Your task to perform on an android device: change keyboard looks Image 0: 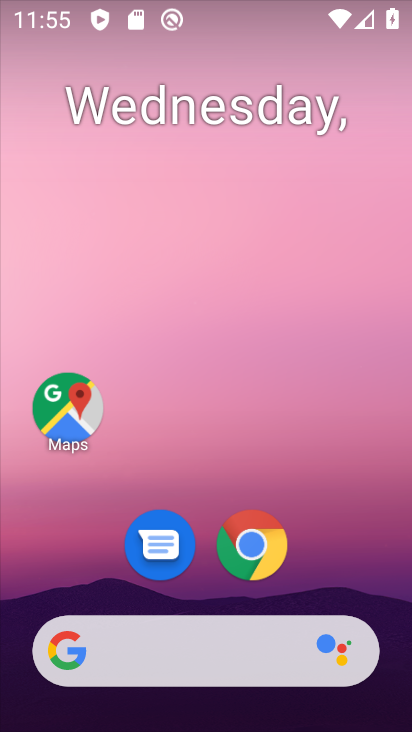
Step 0: drag from (316, 506) to (320, 5)
Your task to perform on an android device: change keyboard looks Image 1: 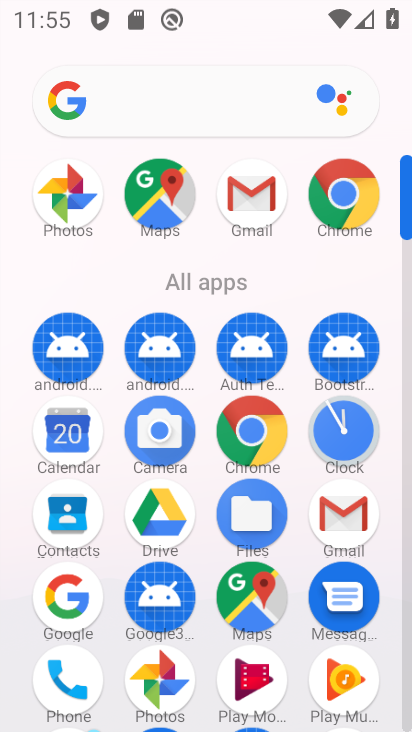
Step 1: drag from (210, 553) to (247, 187)
Your task to perform on an android device: change keyboard looks Image 2: 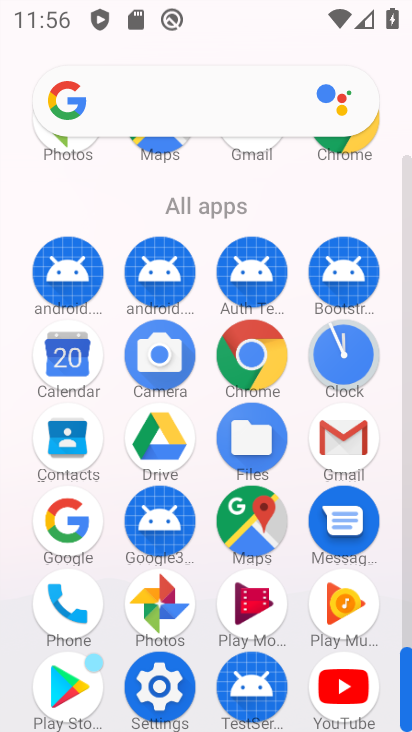
Step 2: click (171, 681)
Your task to perform on an android device: change keyboard looks Image 3: 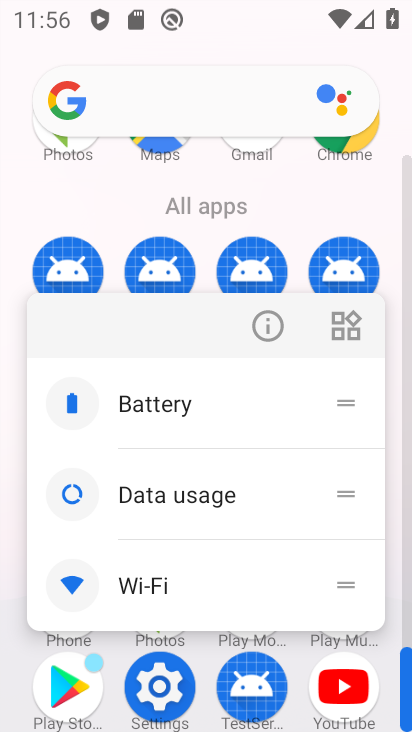
Step 3: click (170, 686)
Your task to perform on an android device: change keyboard looks Image 4: 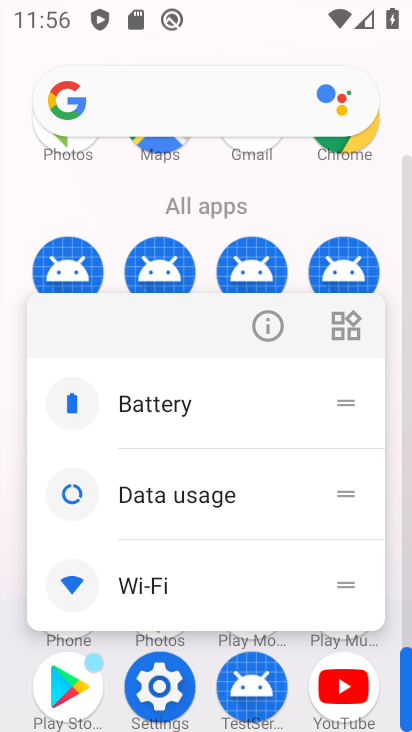
Step 4: drag from (388, 206) to (405, 49)
Your task to perform on an android device: change keyboard looks Image 5: 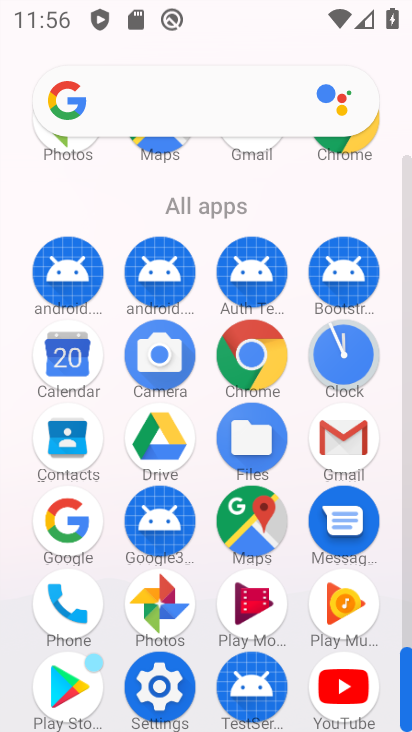
Step 5: drag from (375, 571) to (399, 226)
Your task to perform on an android device: change keyboard looks Image 6: 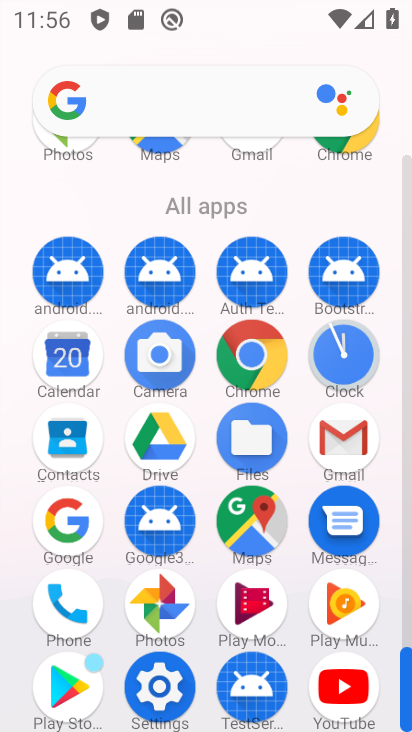
Step 6: click (152, 677)
Your task to perform on an android device: change keyboard looks Image 7: 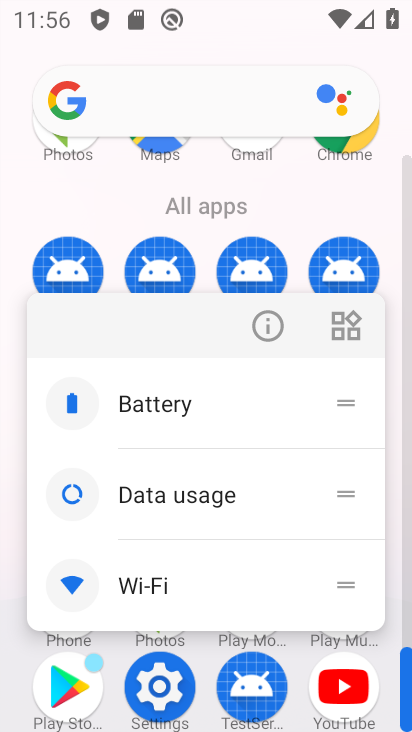
Step 7: click (162, 692)
Your task to perform on an android device: change keyboard looks Image 8: 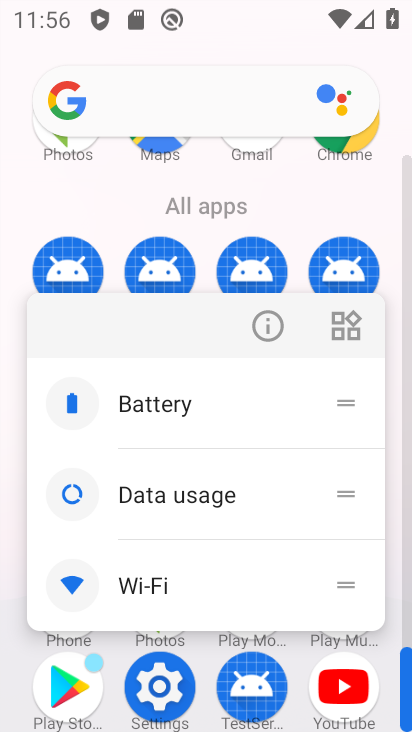
Step 8: click (172, 697)
Your task to perform on an android device: change keyboard looks Image 9: 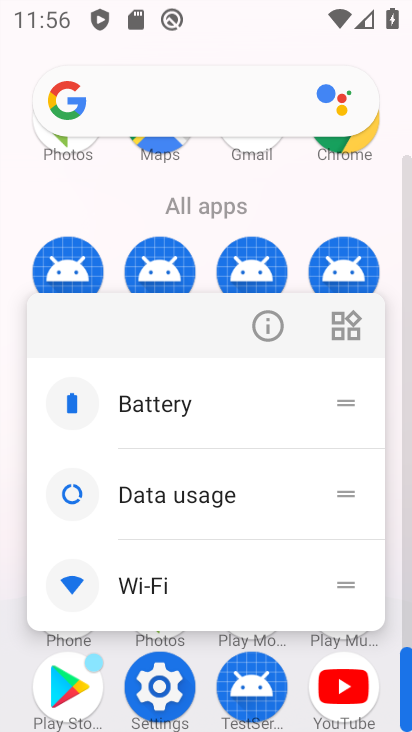
Step 9: click (171, 697)
Your task to perform on an android device: change keyboard looks Image 10: 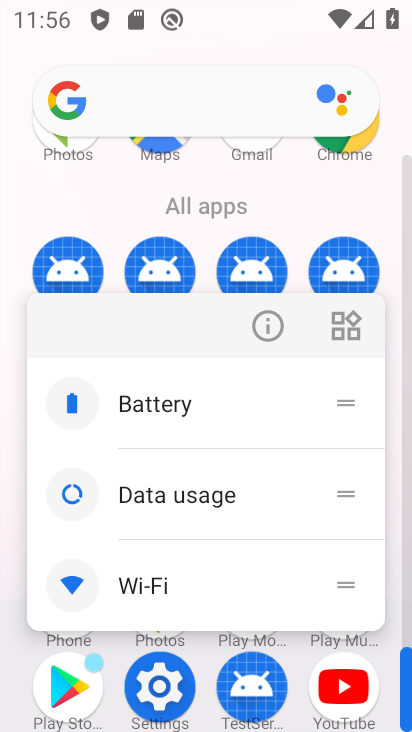
Step 10: click (207, 652)
Your task to perform on an android device: change keyboard looks Image 11: 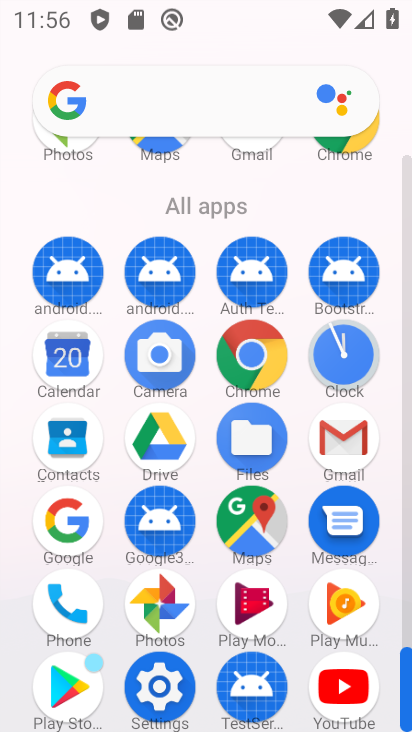
Step 11: click (169, 681)
Your task to perform on an android device: change keyboard looks Image 12: 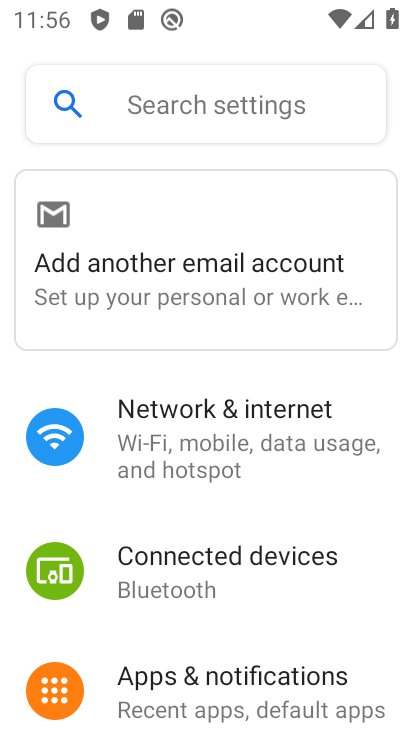
Step 12: drag from (292, 630) to (302, 0)
Your task to perform on an android device: change keyboard looks Image 13: 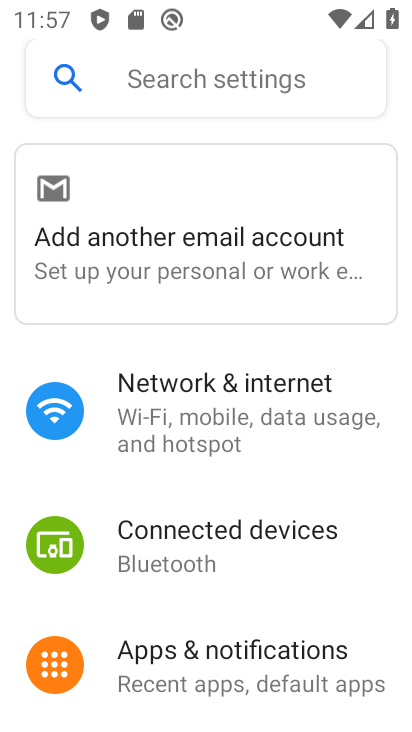
Step 13: drag from (218, 588) to (236, 148)
Your task to perform on an android device: change keyboard looks Image 14: 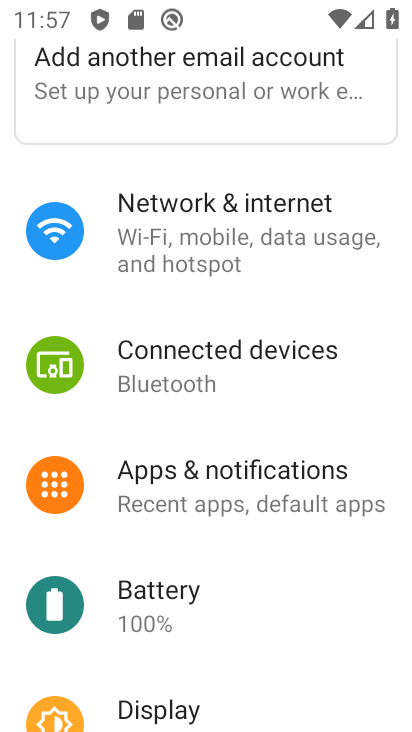
Step 14: drag from (184, 537) to (258, 114)
Your task to perform on an android device: change keyboard looks Image 15: 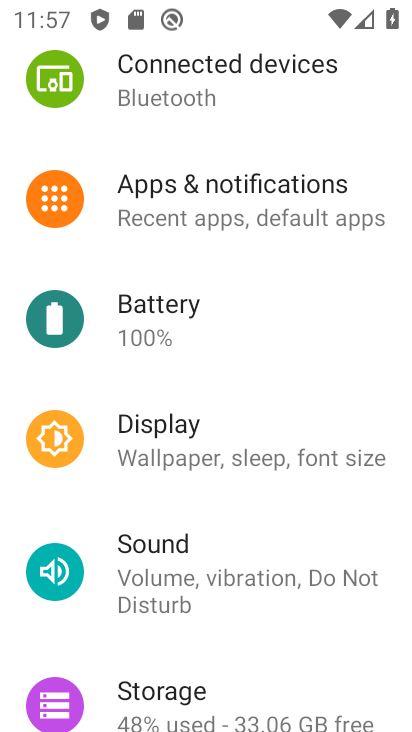
Step 15: drag from (199, 549) to (312, 106)
Your task to perform on an android device: change keyboard looks Image 16: 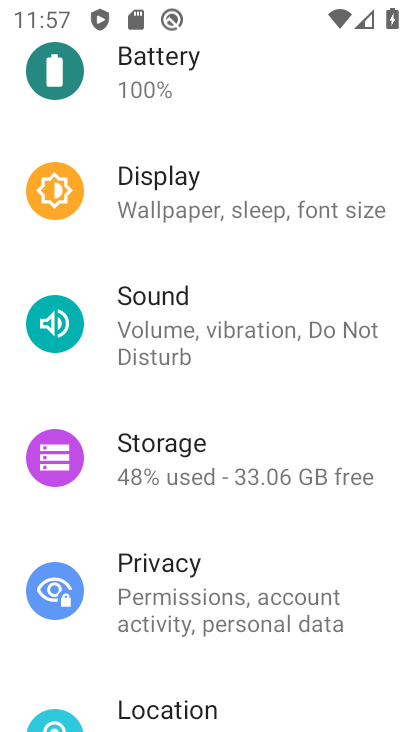
Step 16: drag from (223, 599) to (295, 146)
Your task to perform on an android device: change keyboard looks Image 17: 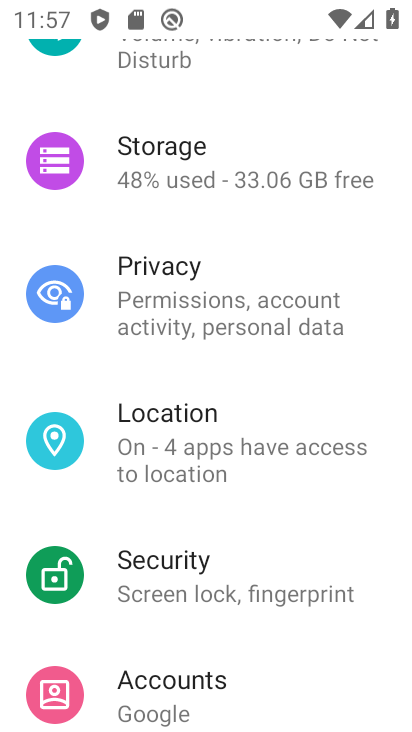
Step 17: drag from (213, 630) to (292, 240)
Your task to perform on an android device: change keyboard looks Image 18: 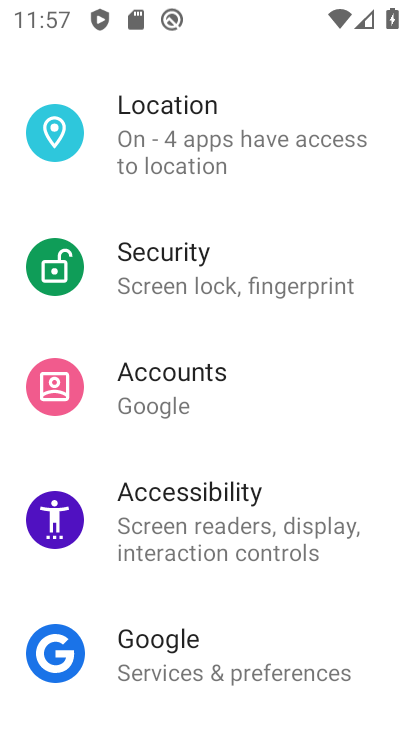
Step 18: drag from (175, 613) to (273, 256)
Your task to perform on an android device: change keyboard looks Image 19: 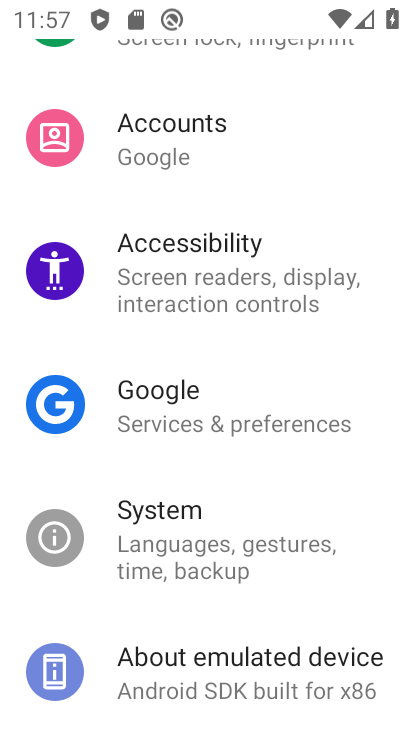
Step 19: click (191, 528)
Your task to perform on an android device: change keyboard looks Image 20: 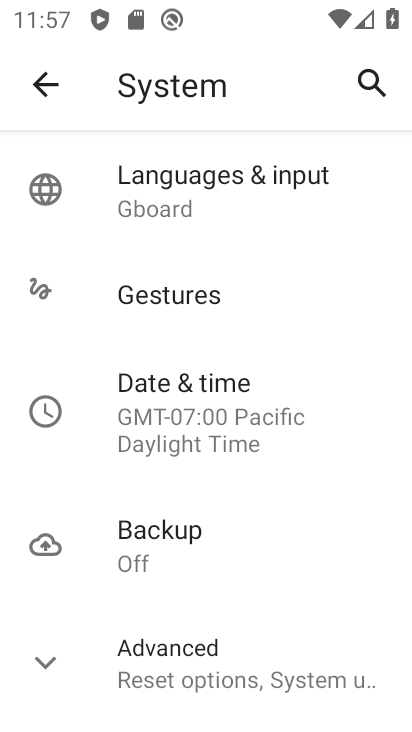
Step 20: drag from (237, 502) to (264, 253)
Your task to perform on an android device: change keyboard looks Image 21: 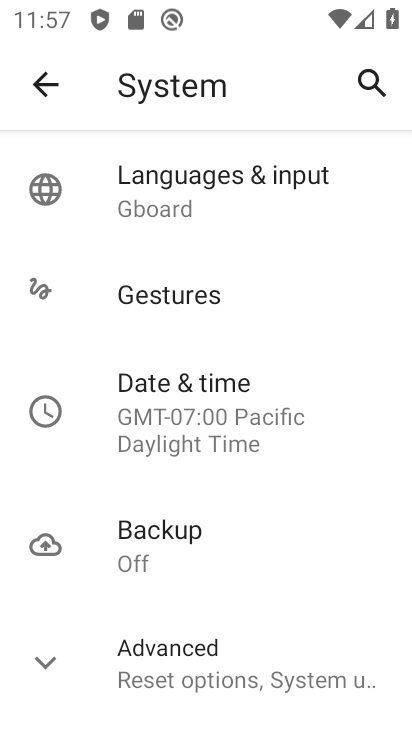
Step 21: click (211, 202)
Your task to perform on an android device: change keyboard looks Image 22: 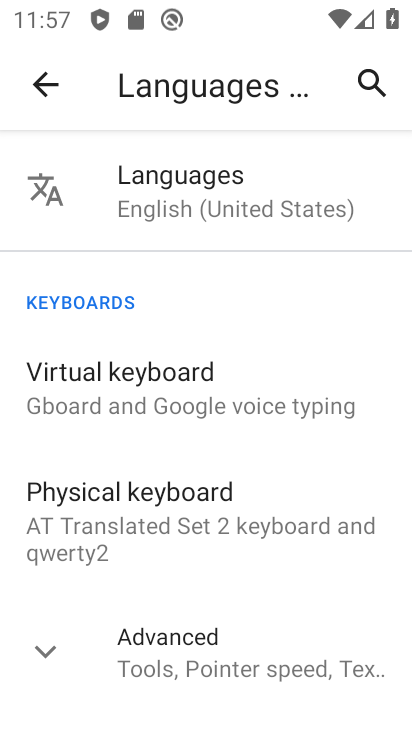
Step 22: click (179, 359)
Your task to perform on an android device: change keyboard looks Image 23: 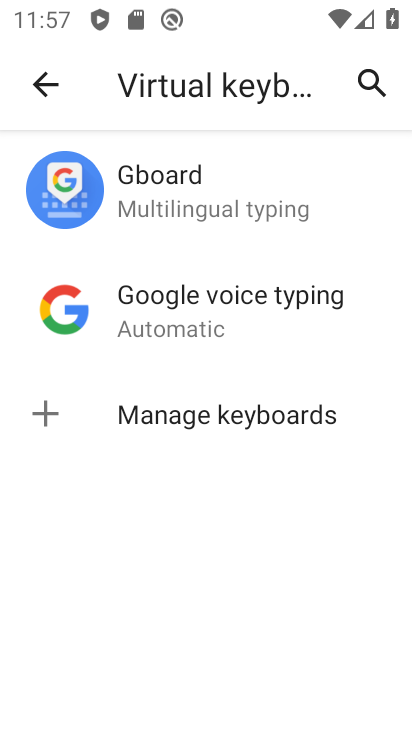
Step 23: click (230, 168)
Your task to perform on an android device: change keyboard looks Image 24: 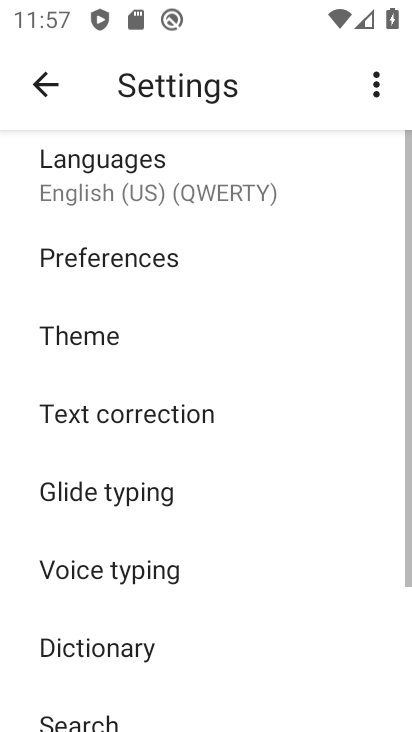
Step 24: click (166, 360)
Your task to perform on an android device: change keyboard looks Image 25: 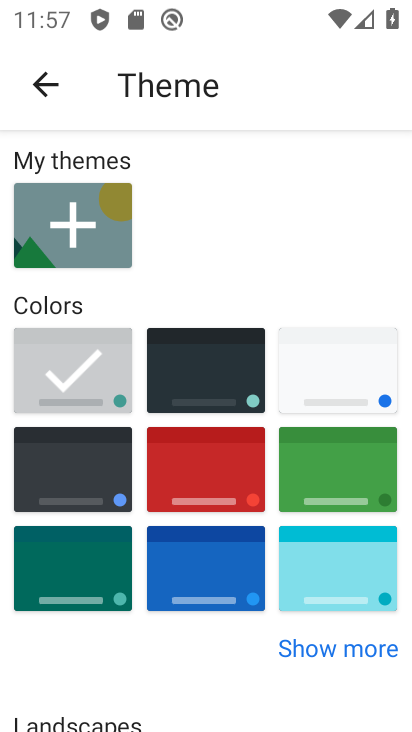
Step 25: click (311, 383)
Your task to perform on an android device: change keyboard looks Image 26: 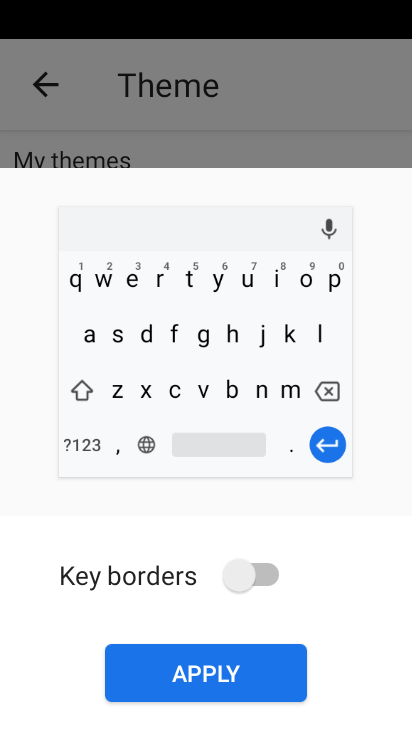
Step 26: click (237, 690)
Your task to perform on an android device: change keyboard looks Image 27: 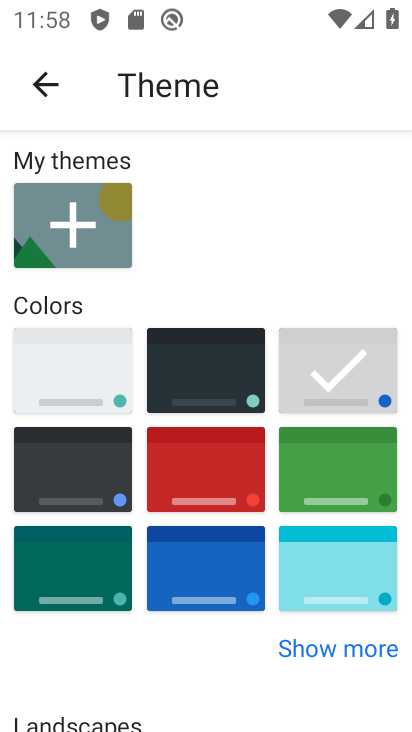
Step 27: task complete